Your task to perform on an android device: What's the weather today? Image 0: 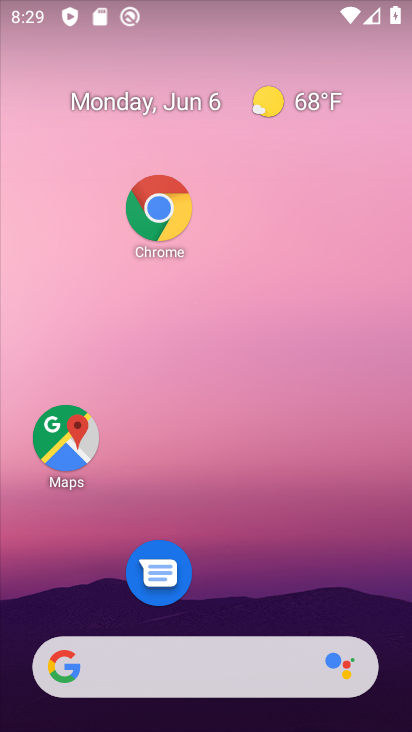
Step 0: drag from (226, 550) to (167, 208)
Your task to perform on an android device: What's the weather today? Image 1: 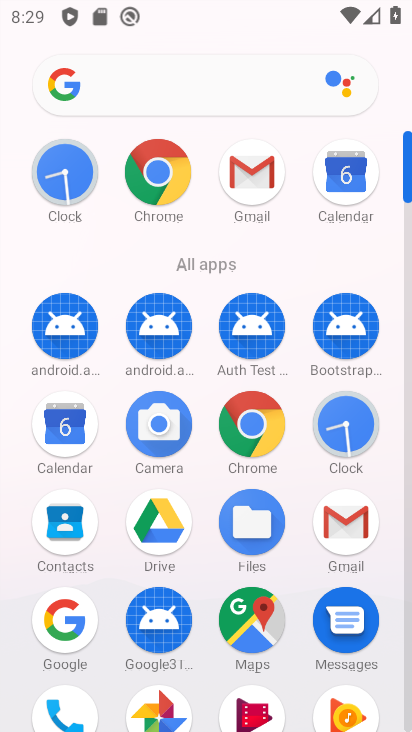
Step 1: press back button
Your task to perform on an android device: What's the weather today? Image 2: 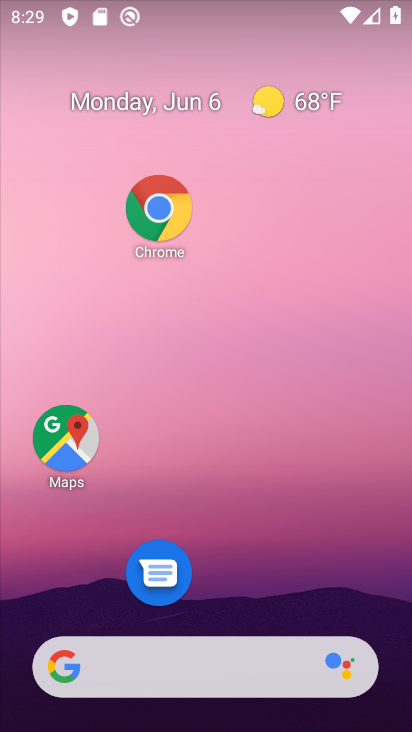
Step 2: drag from (31, 221) to (405, 664)
Your task to perform on an android device: What's the weather today? Image 3: 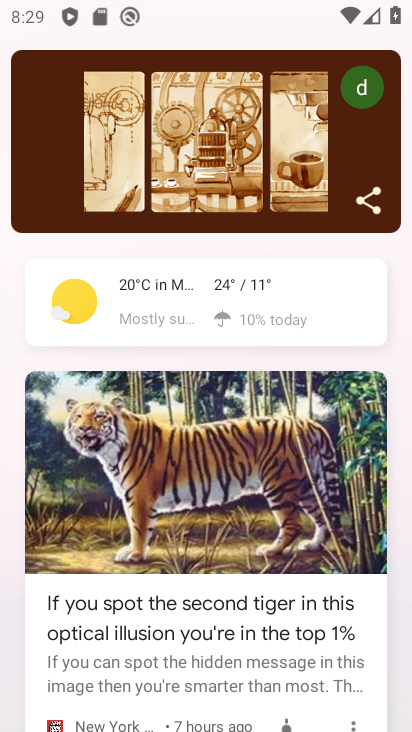
Step 3: click (163, 299)
Your task to perform on an android device: What's the weather today? Image 4: 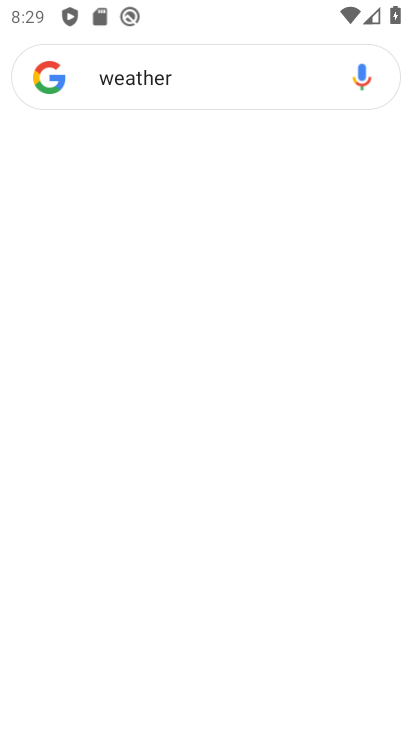
Step 4: click (165, 304)
Your task to perform on an android device: What's the weather today? Image 5: 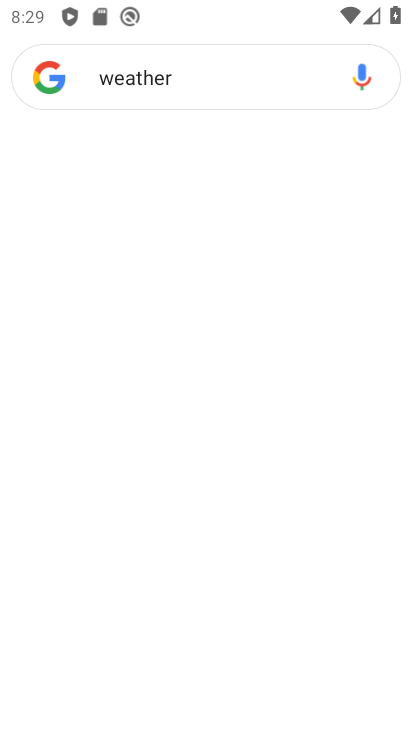
Step 5: click (165, 304)
Your task to perform on an android device: What's the weather today? Image 6: 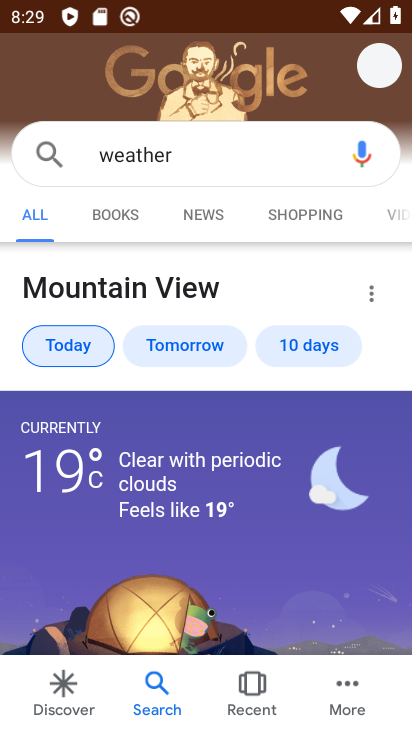
Step 6: task complete